Your task to perform on an android device: Search for "usb-a to usb-b" on ebay, select the first entry, add it to the cart, then select checkout. Image 0: 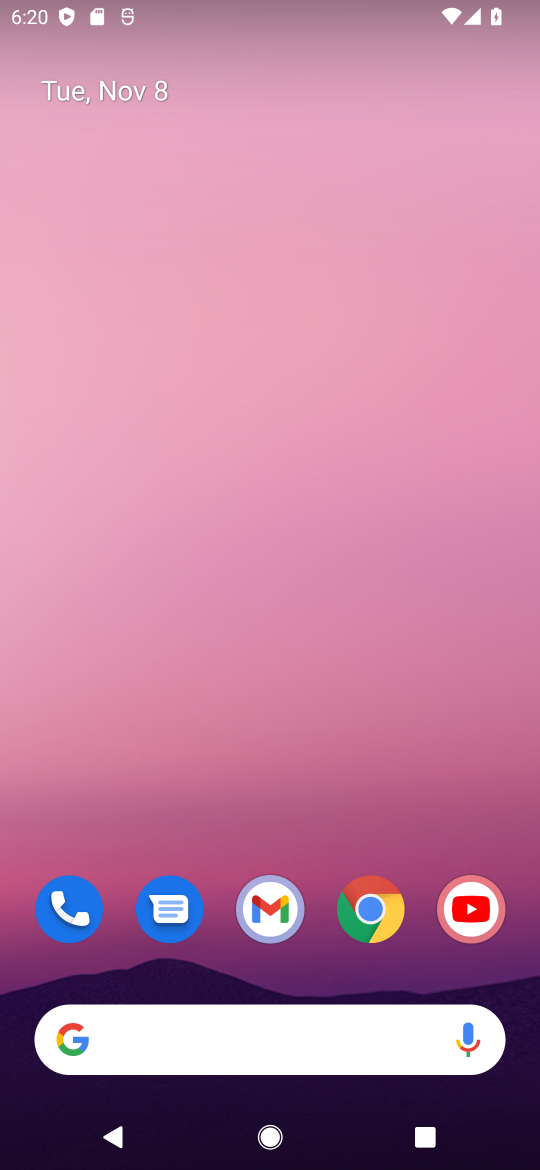
Step 0: click (373, 905)
Your task to perform on an android device: Search for "usb-a to usb-b" on ebay, select the first entry, add it to the cart, then select checkout. Image 1: 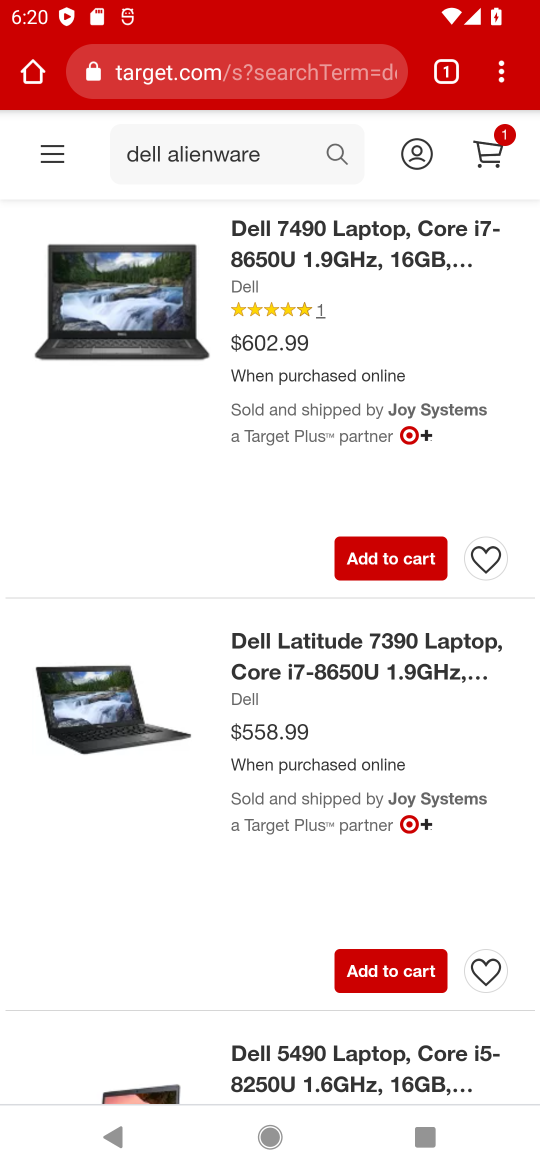
Step 1: click (268, 75)
Your task to perform on an android device: Search for "usb-a to usb-b" on ebay, select the first entry, add it to the cart, then select checkout. Image 2: 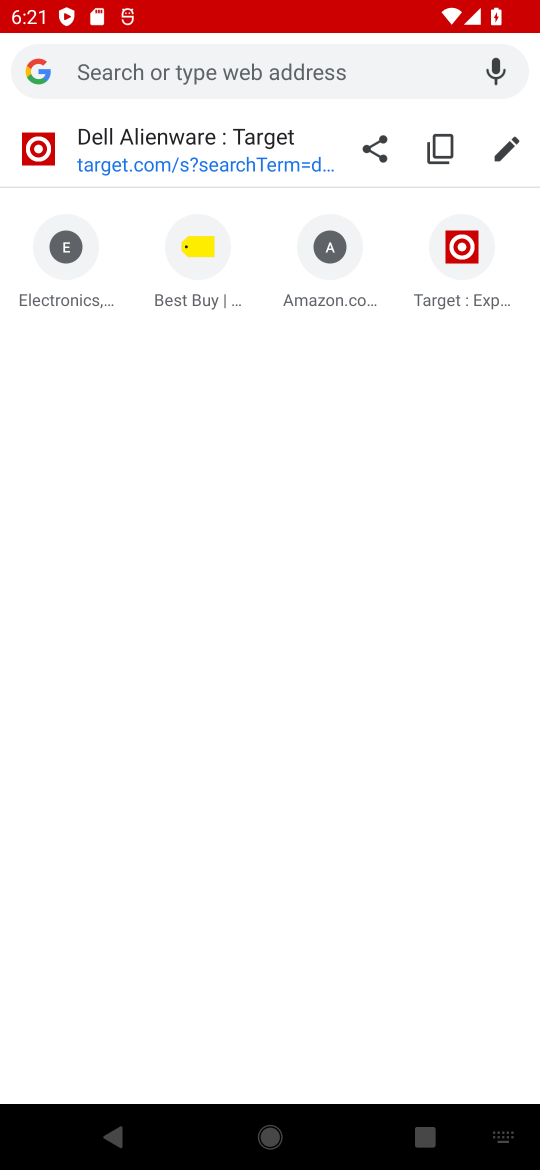
Step 2: click (69, 298)
Your task to perform on an android device: Search for "usb-a to usb-b" on ebay, select the first entry, add it to the cart, then select checkout. Image 3: 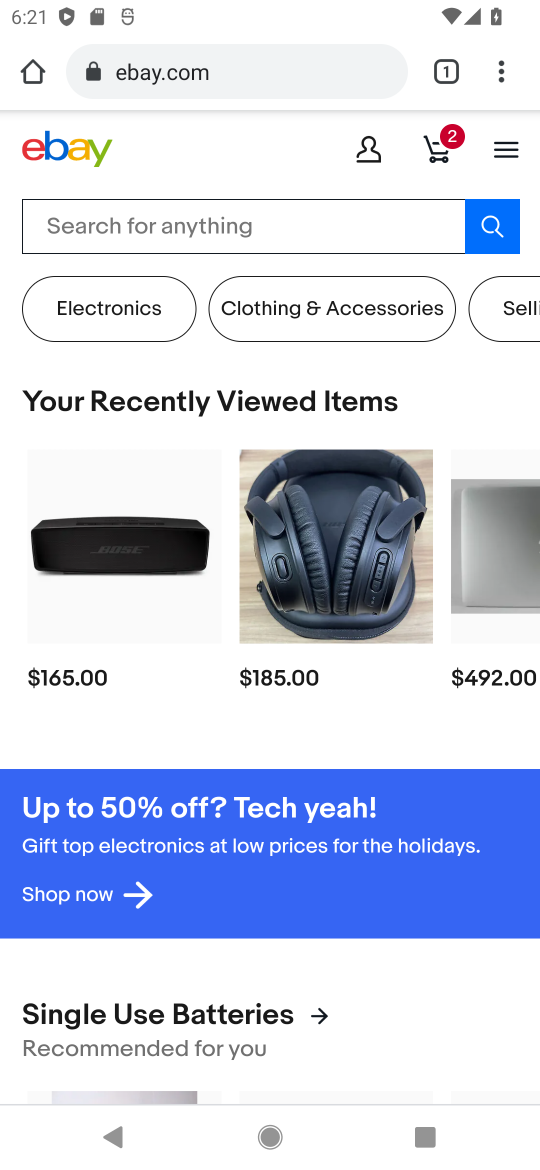
Step 3: drag from (267, 989) to (211, 962)
Your task to perform on an android device: Search for "usb-a to usb-b" on ebay, select the first entry, add it to the cart, then select checkout. Image 4: 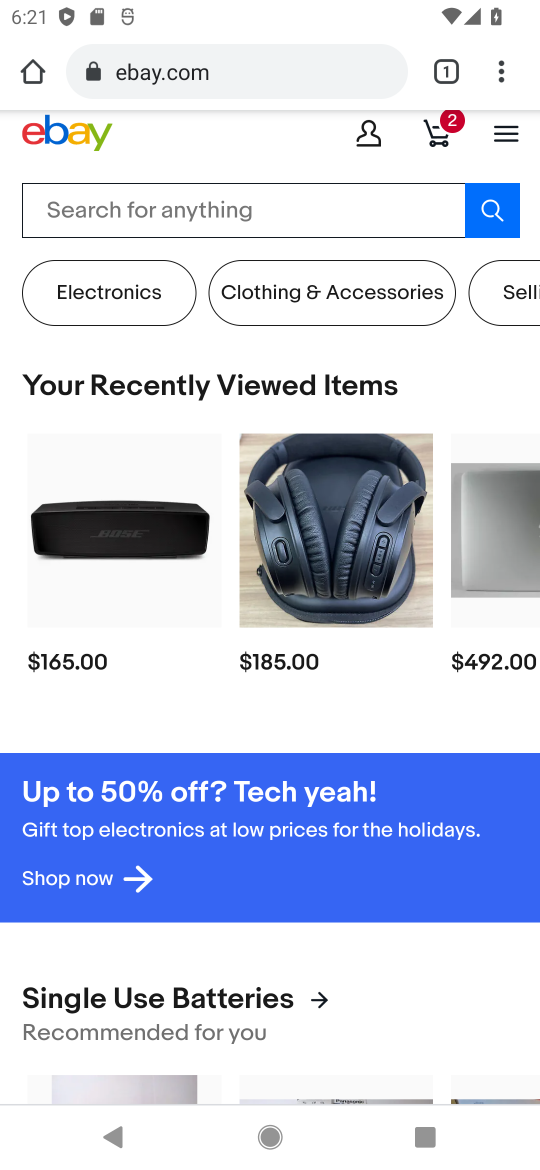
Step 4: click (196, 190)
Your task to perform on an android device: Search for "usb-a to usb-b" on ebay, select the first entry, add it to the cart, then select checkout. Image 5: 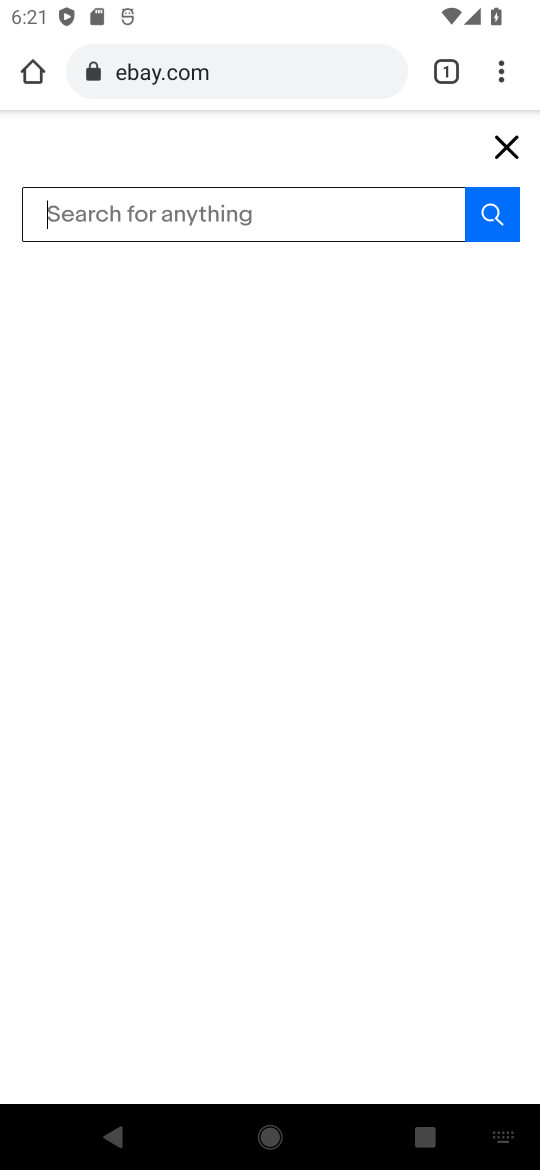
Step 5: press home button
Your task to perform on an android device: Search for "usb-a to usb-b" on ebay, select the first entry, add it to the cart, then select checkout. Image 6: 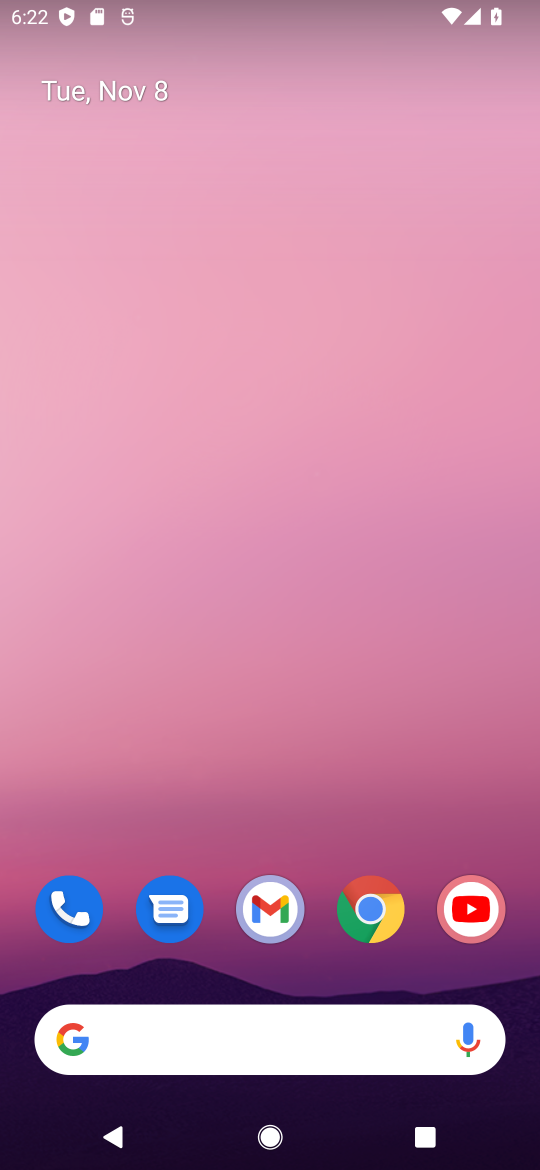
Step 6: click (377, 911)
Your task to perform on an android device: Search for "usb-a to usb-b" on ebay, select the first entry, add it to the cart, then select checkout. Image 7: 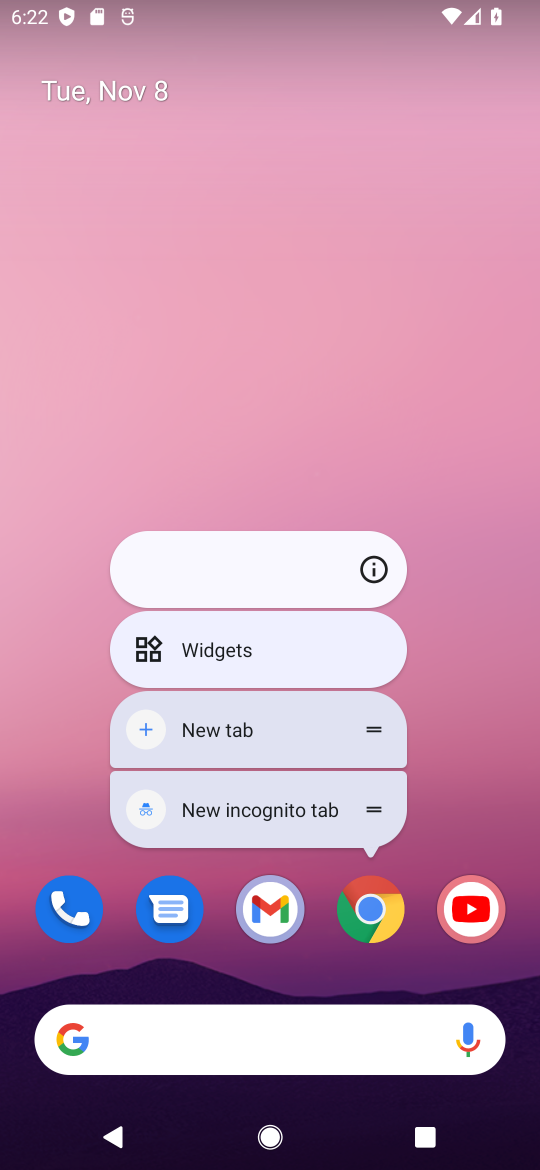
Step 7: click (369, 923)
Your task to perform on an android device: Search for "usb-a to usb-b" on ebay, select the first entry, add it to the cart, then select checkout. Image 8: 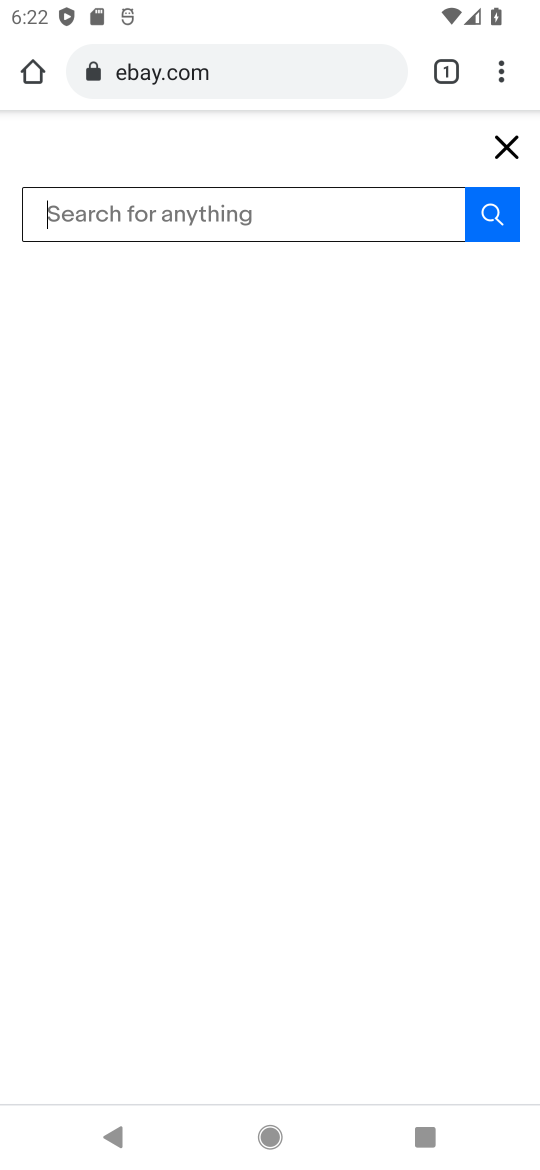
Step 8: click (195, 219)
Your task to perform on an android device: Search for "usb-a to usb-b" on ebay, select the first entry, add it to the cart, then select checkout. Image 9: 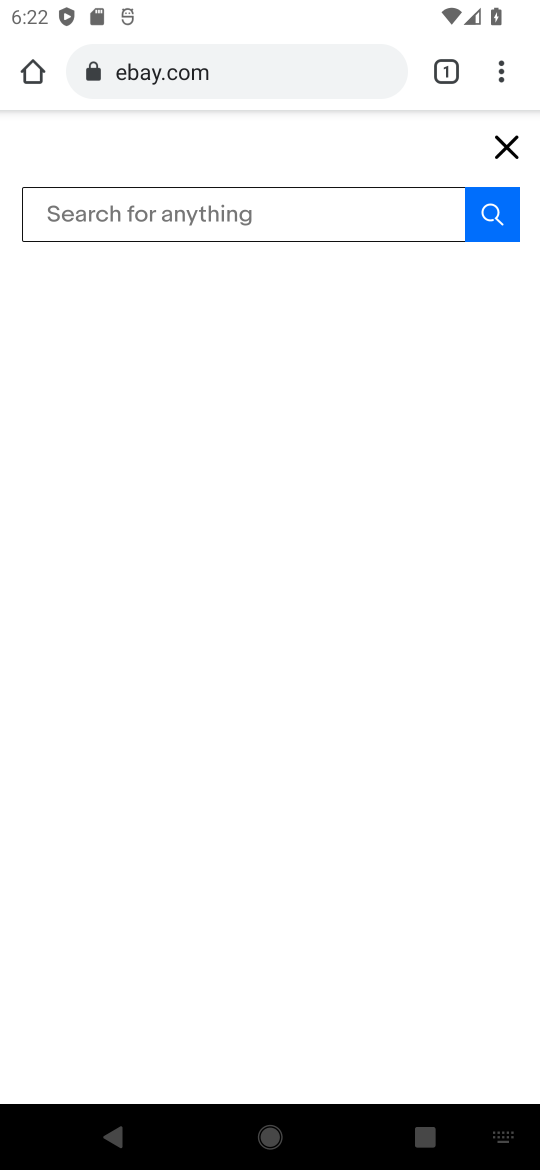
Step 9: type "usb-a to usb-b"
Your task to perform on an android device: Search for "usb-a to usb-b" on ebay, select the first entry, add it to the cart, then select checkout. Image 10: 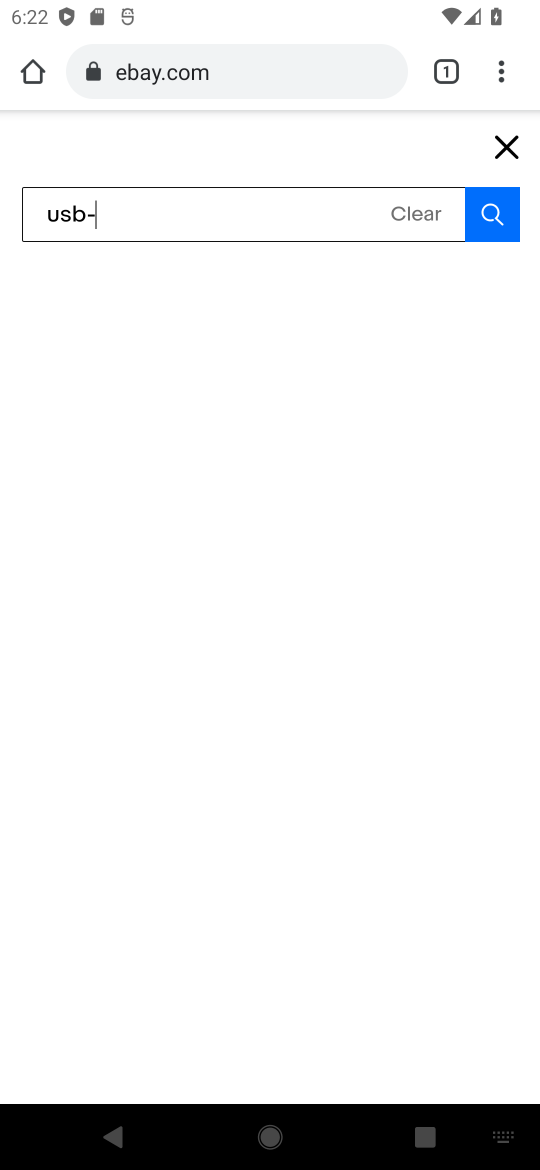
Step 10: press enter
Your task to perform on an android device: Search for "usb-a to usb-b" on ebay, select the first entry, add it to the cart, then select checkout. Image 11: 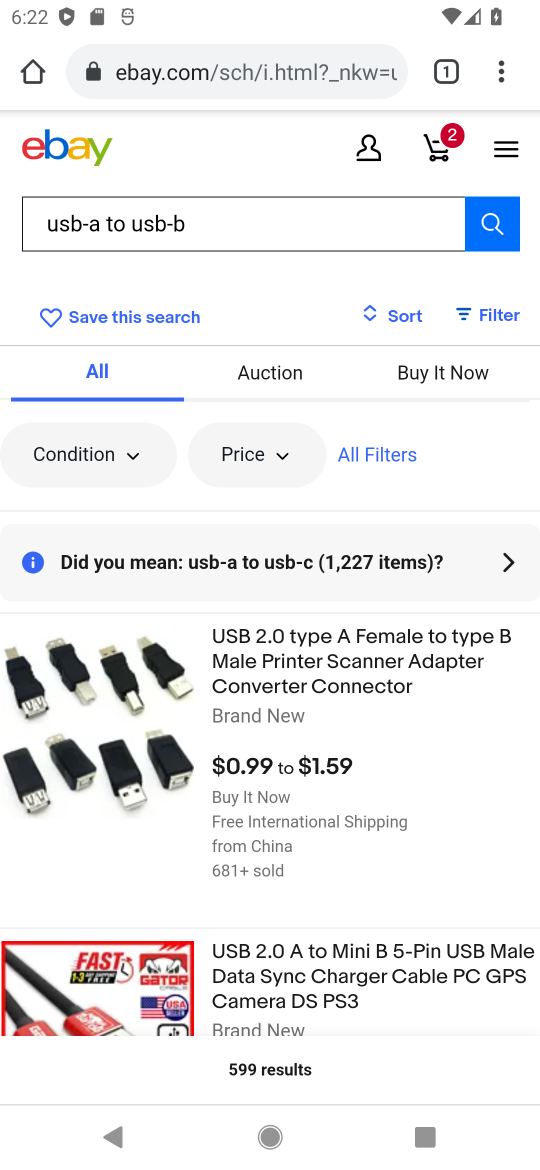
Step 11: click (318, 697)
Your task to perform on an android device: Search for "usb-a to usb-b" on ebay, select the first entry, add it to the cart, then select checkout. Image 12: 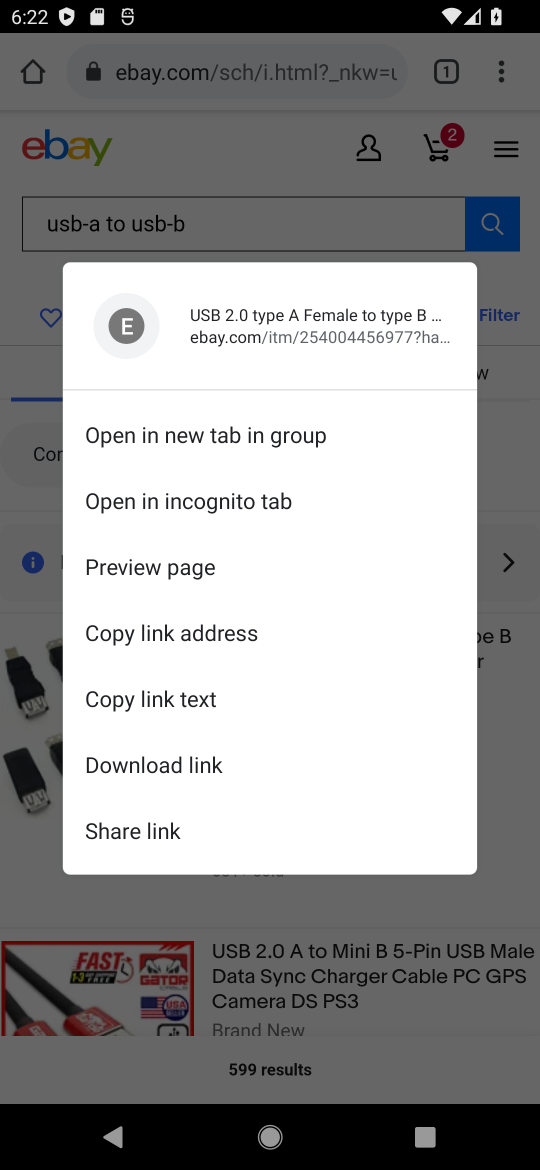
Step 12: click (504, 687)
Your task to perform on an android device: Search for "usb-a to usb-b" on ebay, select the first entry, add it to the cart, then select checkout. Image 13: 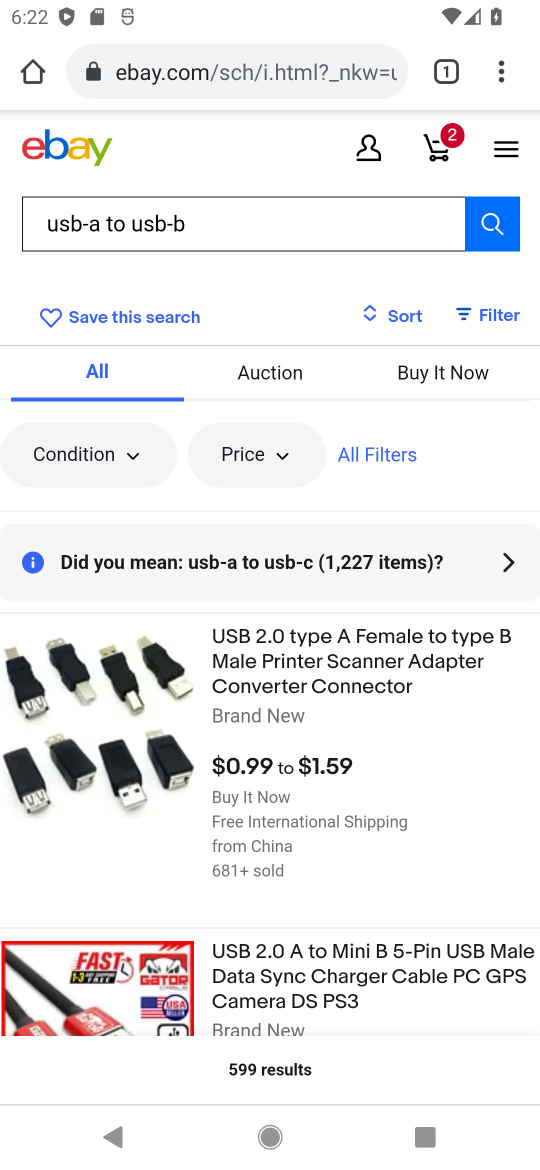
Step 13: click (317, 669)
Your task to perform on an android device: Search for "usb-a to usb-b" on ebay, select the first entry, add it to the cart, then select checkout. Image 14: 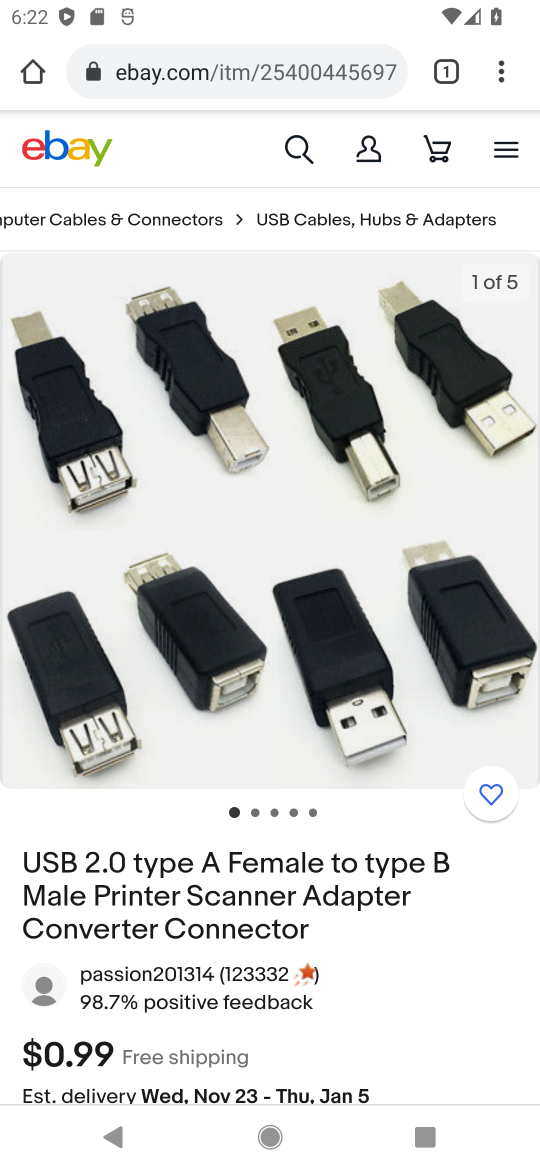
Step 14: drag from (260, 964) to (470, 425)
Your task to perform on an android device: Search for "usb-a to usb-b" on ebay, select the first entry, add it to the cart, then select checkout. Image 15: 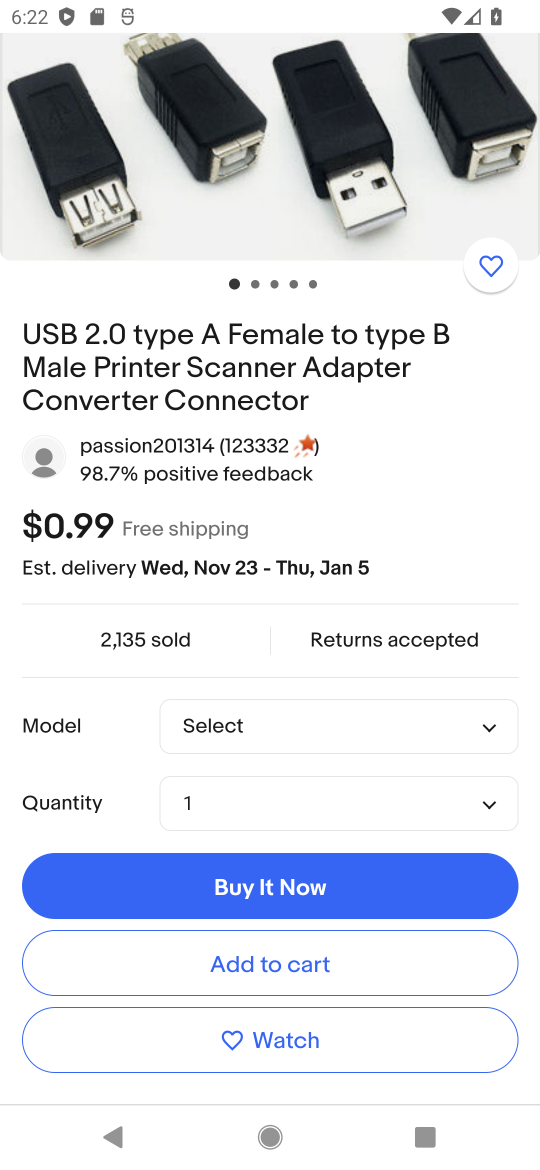
Step 15: click (250, 971)
Your task to perform on an android device: Search for "usb-a to usb-b" on ebay, select the first entry, add it to the cart, then select checkout. Image 16: 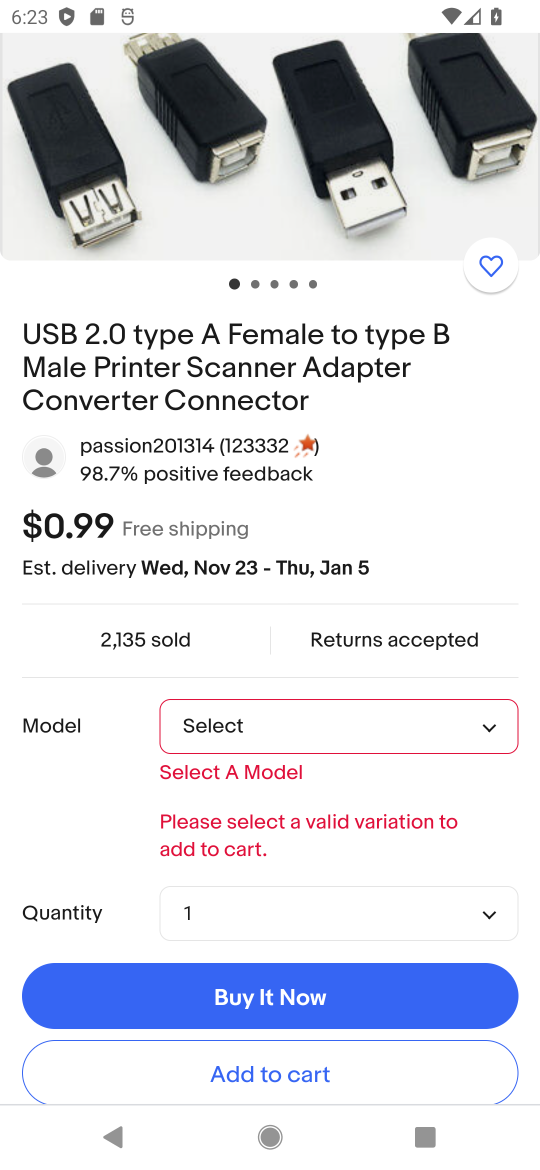
Step 16: click (487, 729)
Your task to perform on an android device: Search for "usb-a to usb-b" on ebay, select the first entry, add it to the cart, then select checkout. Image 17: 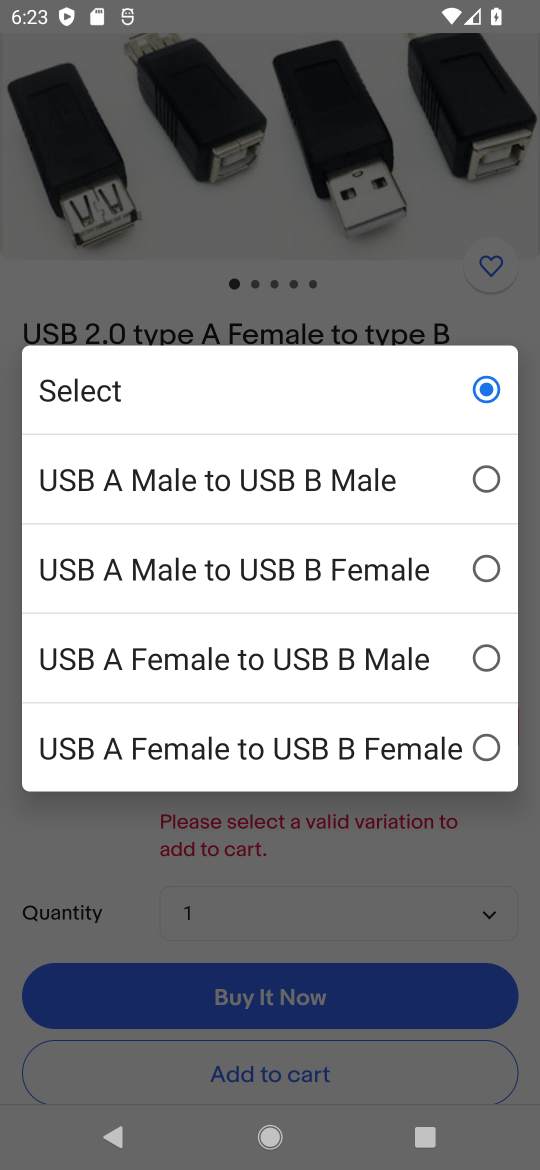
Step 17: click (481, 478)
Your task to perform on an android device: Search for "usb-a to usb-b" on ebay, select the first entry, add it to the cart, then select checkout. Image 18: 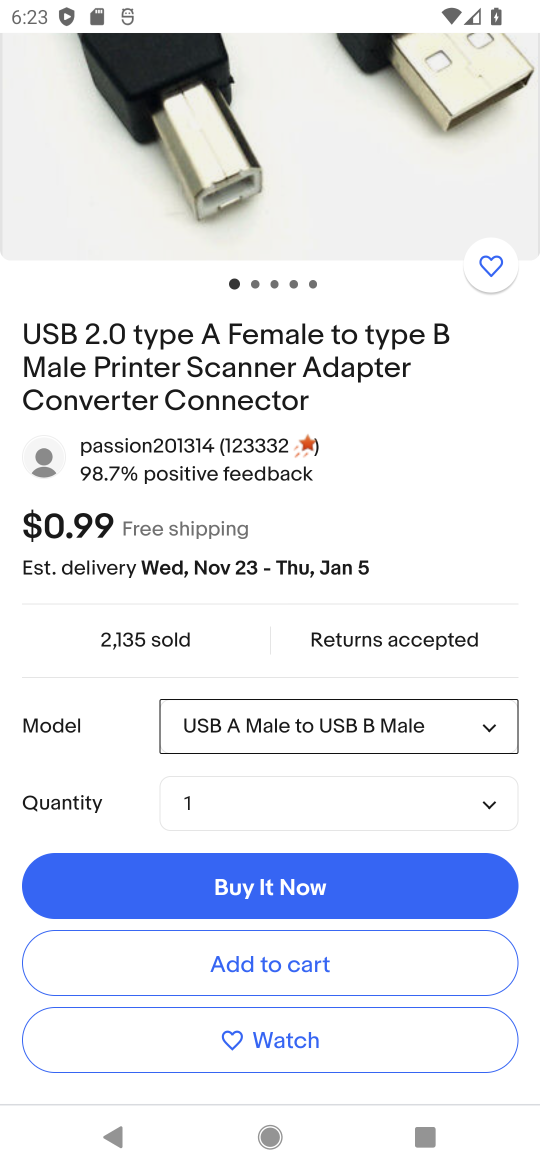
Step 18: click (273, 961)
Your task to perform on an android device: Search for "usb-a to usb-b" on ebay, select the first entry, add it to the cart, then select checkout. Image 19: 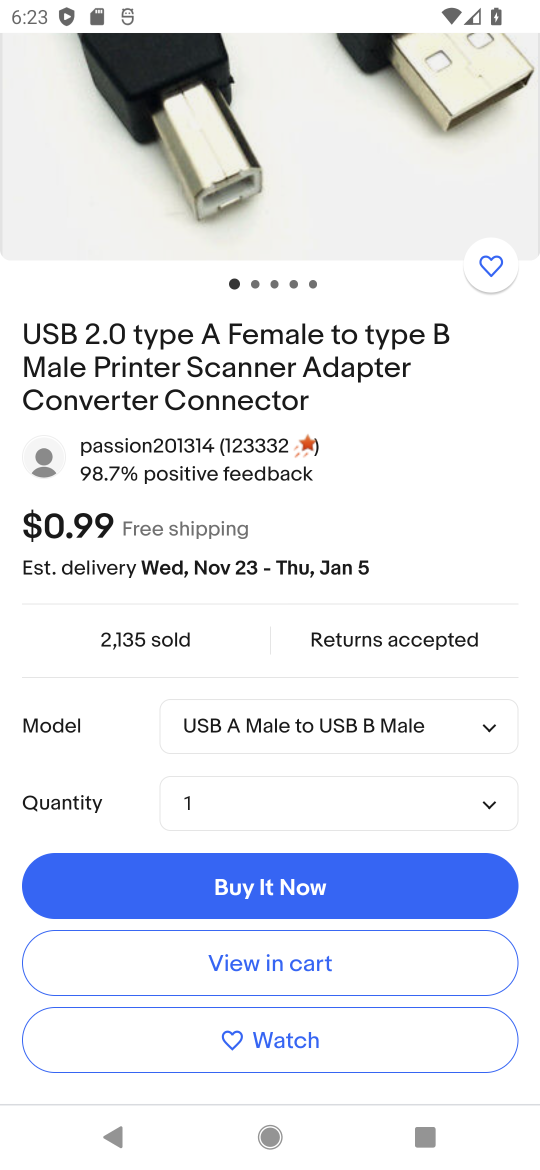
Step 19: click (267, 955)
Your task to perform on an android device: Search for "usb-a to usb-b" on ebay, select the first entry, add it to the cart, then select checkout. Image 20: 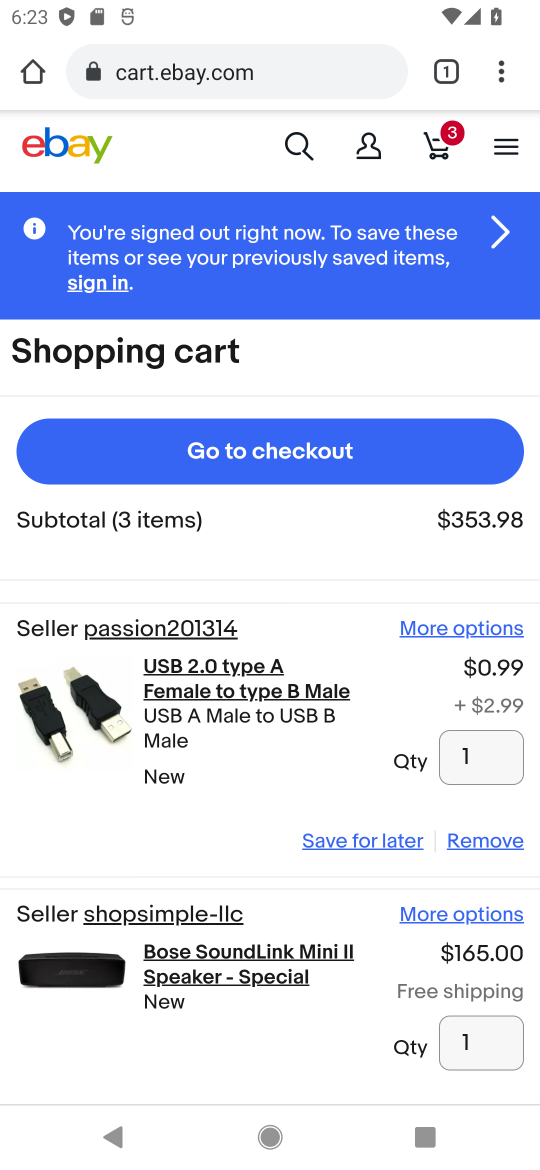
Step 20: drag from (357, 1000) to (368, 549)
Your task to perform on an android device: Search for "usb-a to usb-b" on ebay, select the first entry, add it to the cart, then select checkout. Image 21: 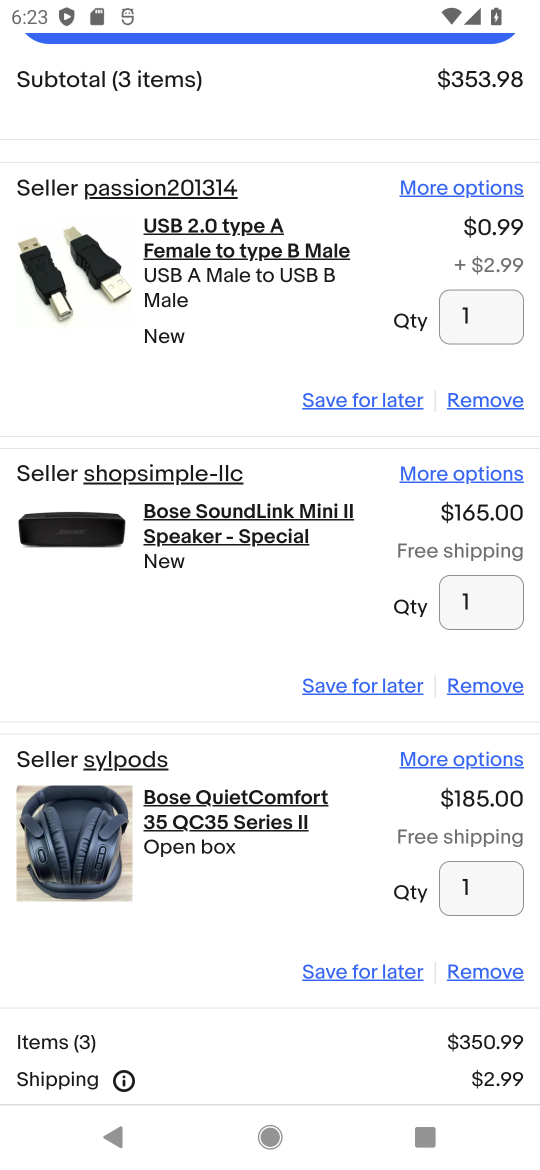
Step 21: click (485, 686)
Your task to perform on an android device: Search for "usb-a to usb-b" on ebay, select the first entry, add it to the cart, then select checkout. Image 22: 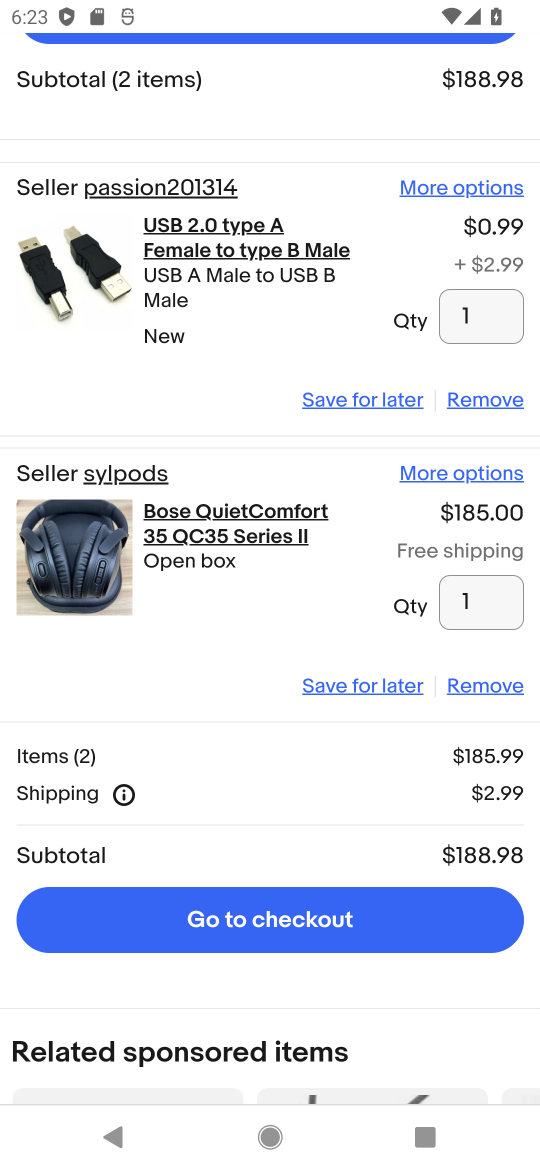
Step 22: click (494, 685)
Your task to perform on an android device: Search for "usb-a to usb-b" on ebay, select the first entry, add it to the cart, then select checkout. Image 23: 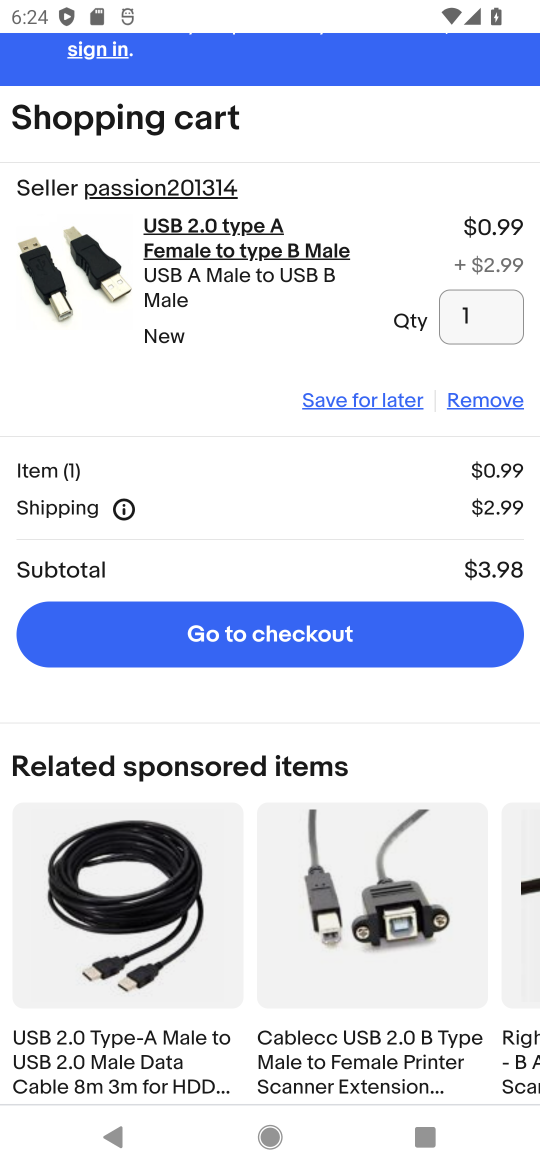
Step 23: task complete